Your task to perform on an android device: Do I have any events tomorrow? Image 0: 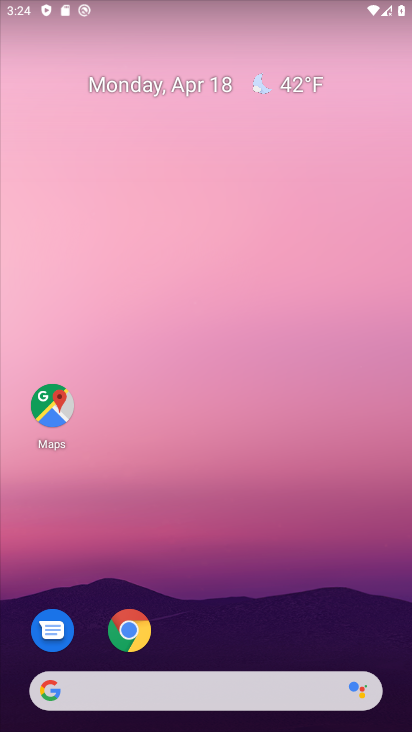
Step 0: drag from (291, 516) to (368, 87)
Your task to perform on an android device: Do I have any events tomorrow? Image 1: 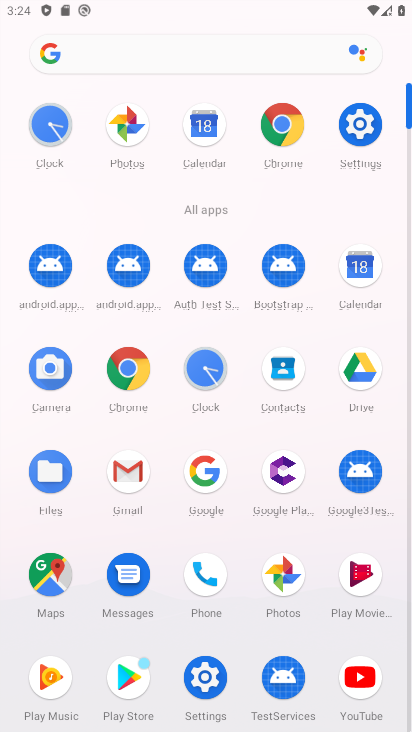
Step 1: click (369, 264)
Your task to perform on an android device: Do I have any events tomorrow? Image 2: 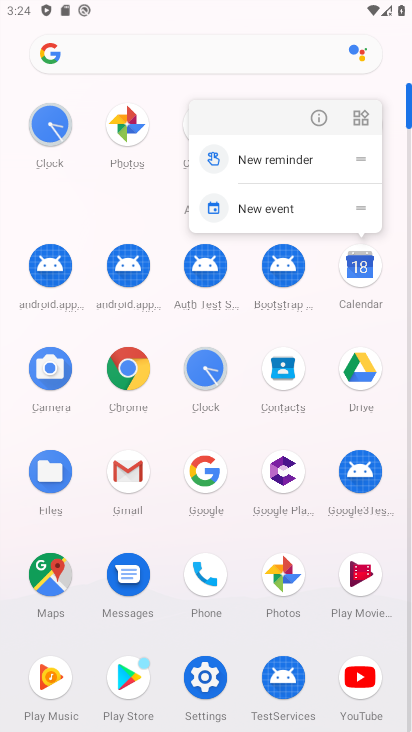
Step 2: click (357, 267)
Your task to perform on an android device: Do I have any events tomorrow? Image 3: 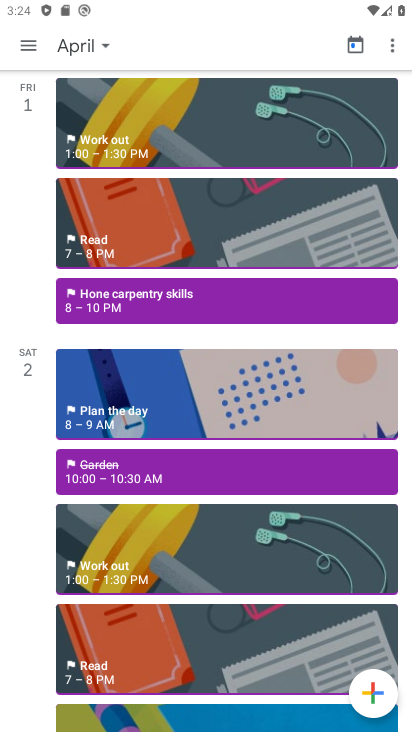
Step 3: click (25, 48)
Your task to perform on an android device: Do I have any events tomorrow? Image 4: 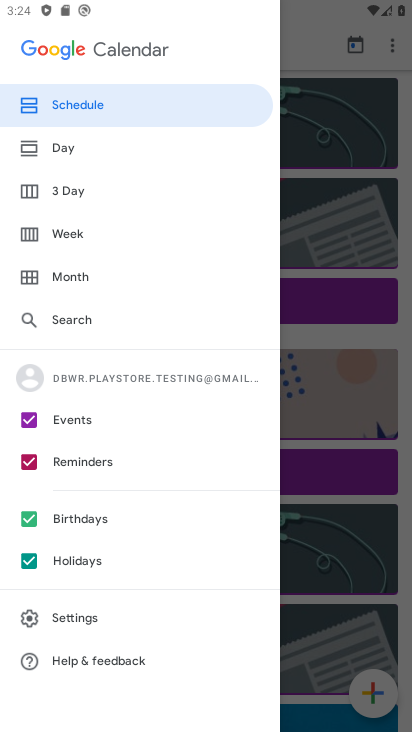
Step 4: click (92, 270)
Your task to perform on an android device: Do I have any events tomorrow? Image 5: 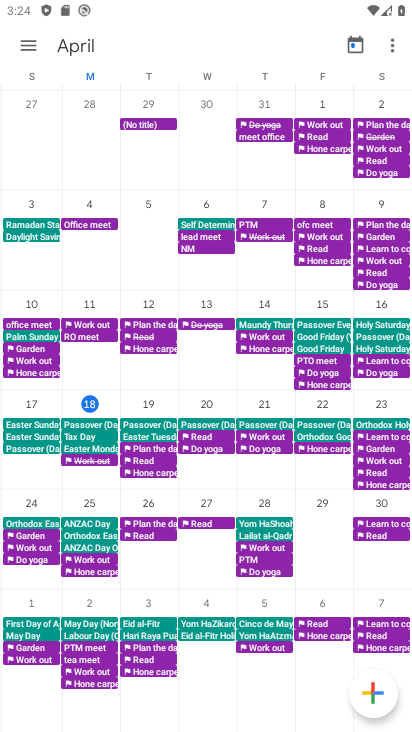
Step 5: click (143, 422)
Your task to perform on an android device: Do I have any events tomorrow? Image 6: 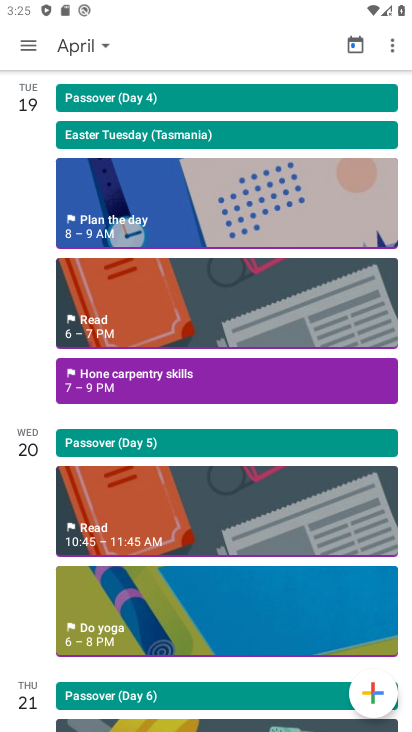
Step 6: click (31, 47)
Your task to perform on an android device: Do I have any events tomorrow? Image 7: 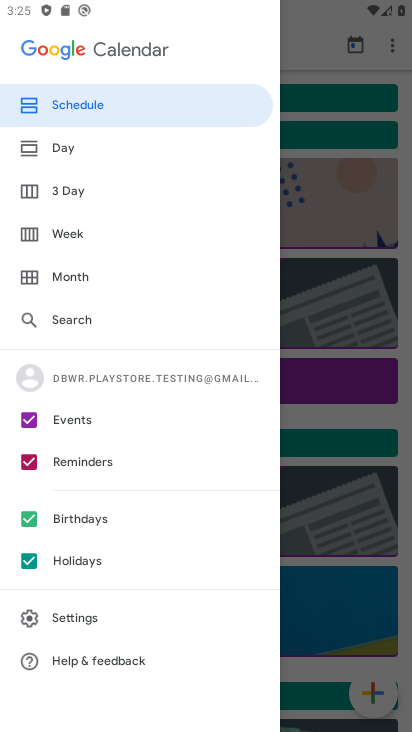
Step 7: click (78, 424)
Your task to perform on an android device: Do I have any events tomorrow? Image 8: 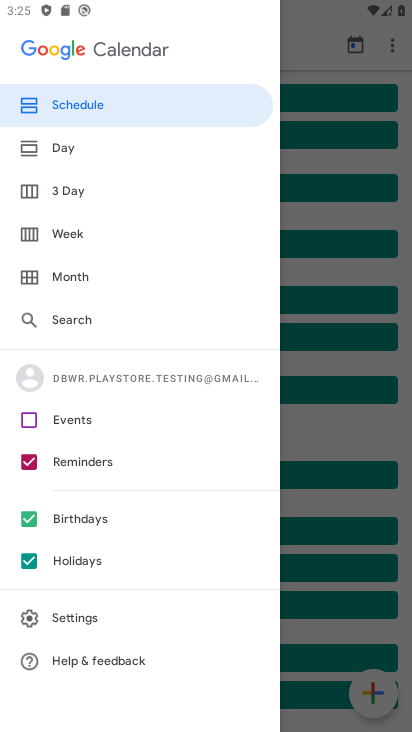
Step 8: click (77, 423)
Your task to perform on an android device: Do I have any events tomorrow? Image 9: 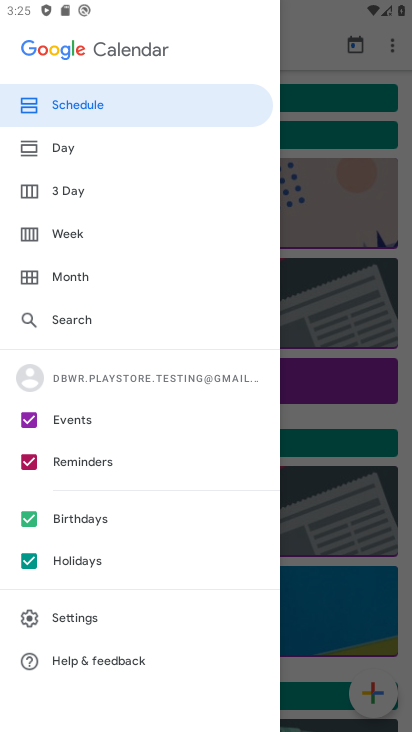
Step 9: click (77, 423)
Your task to perform on an android device: Do I have any events tomorrow? Image 10: 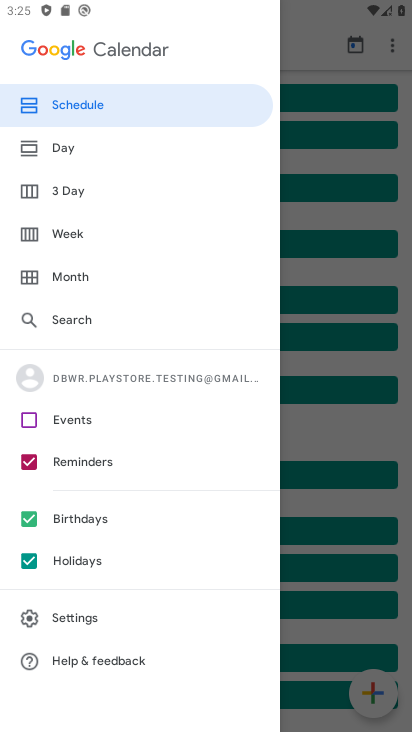
Step 10: click (352, 401)
Your task to perform on an android device: Do I have any events tomorrow? Image 11: 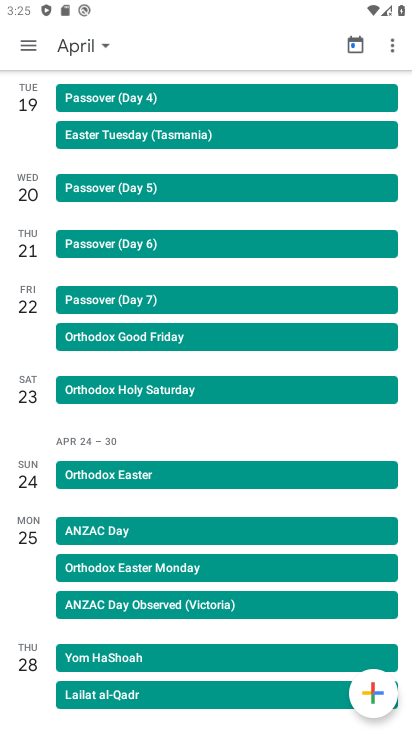
Step 11: task complete